Your task to perform on an android device: change alarm snooze length Image 0: 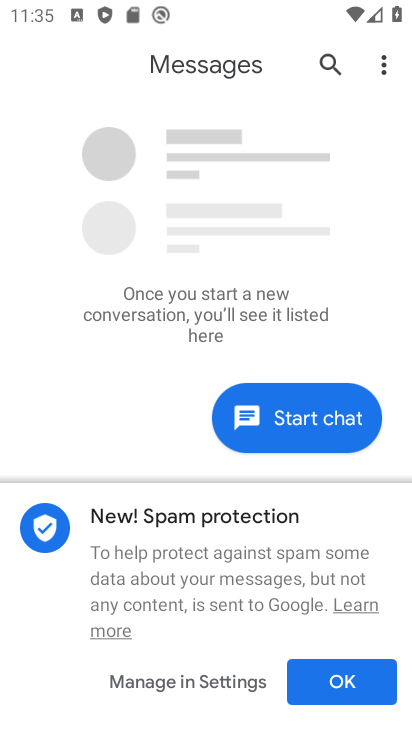
Step 0: click (357, 671)
Your task to perform on an android device: change alarm snooze length Image 1: 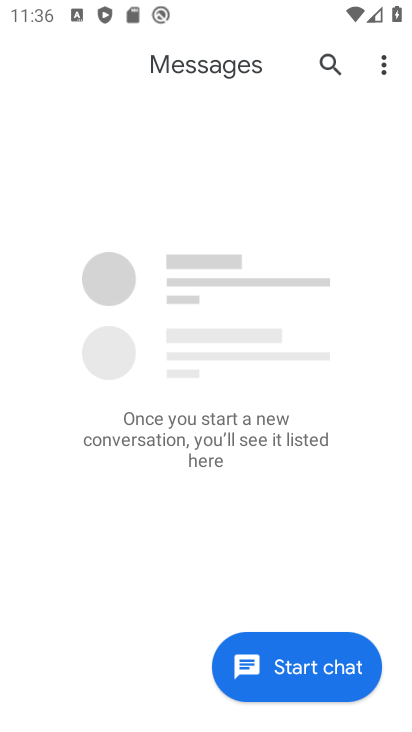
Step 1: click (357, 671)
Your task to perform on an android device: change alarm snooze length Image 2: 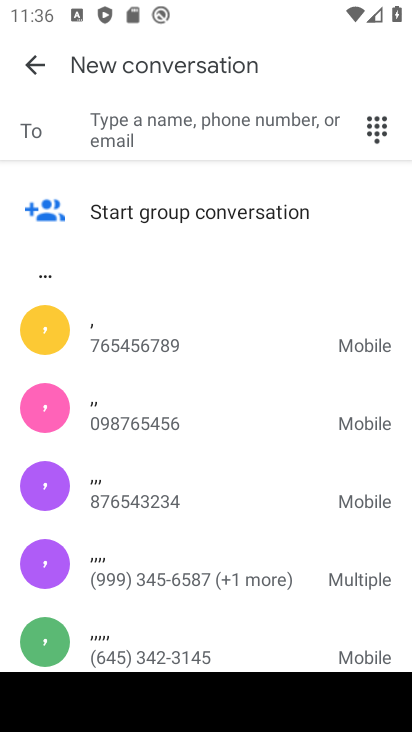
Step 2: press home button
Your task to perform on an android device: change alarm snooze length Image 3: 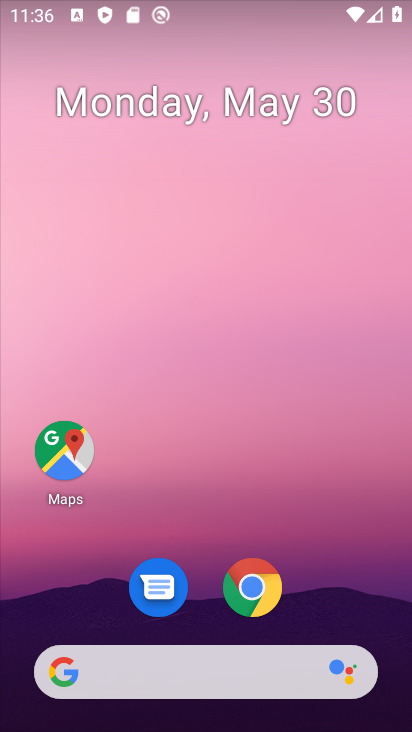
Step 3: drag from (199, 617) to (197, 152)
Your task to perform on an android device: change alarm snooze length Image 4: 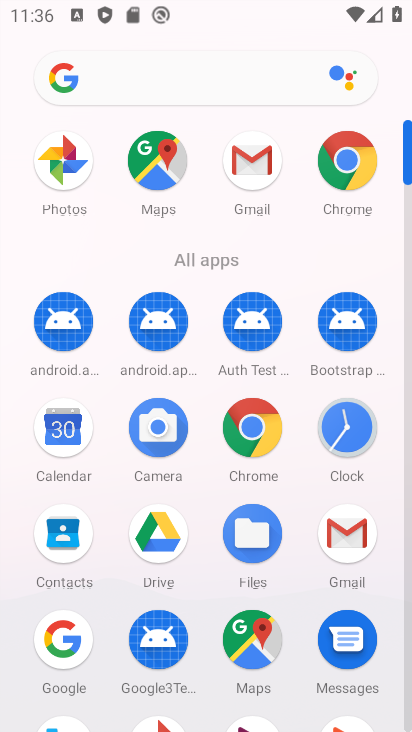
Step 4: click (353, 433)
Your task to perform on an android device: change alarm snooze length Image 5: 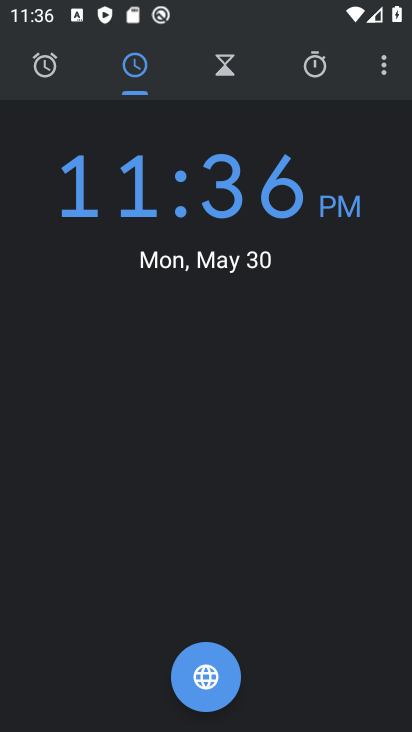
Step 5: click (57, 64)
Your task to perform on an android device: change alarm snooze length Image 6: 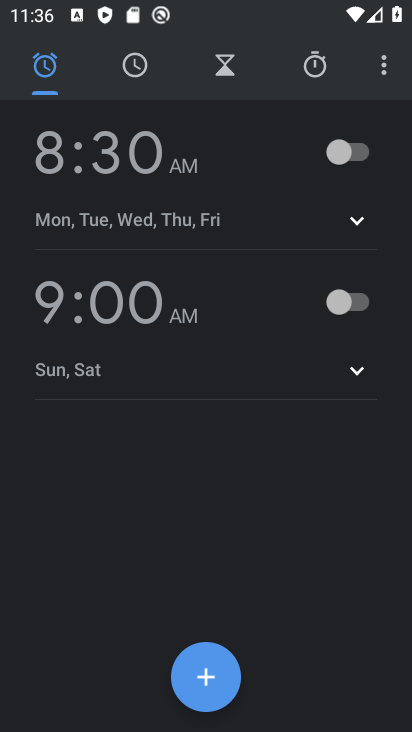
Step 6: click (390, 56)
Your task to perform on an android device: change alarm snooze length Image 7: 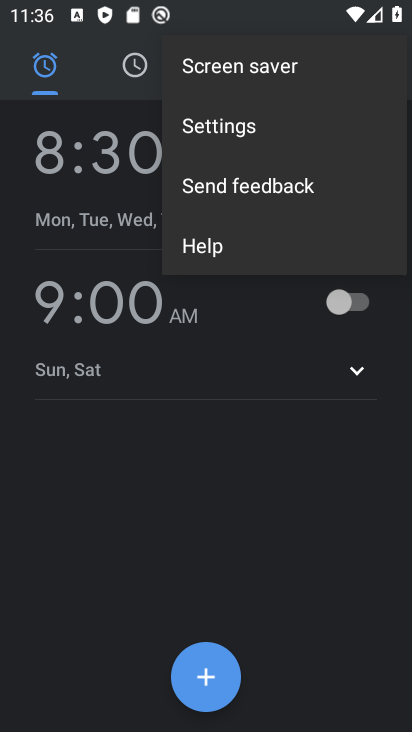
Step 7: click (283, 141)
Your task to perform on an android device: change alarm snooze length Image 8: 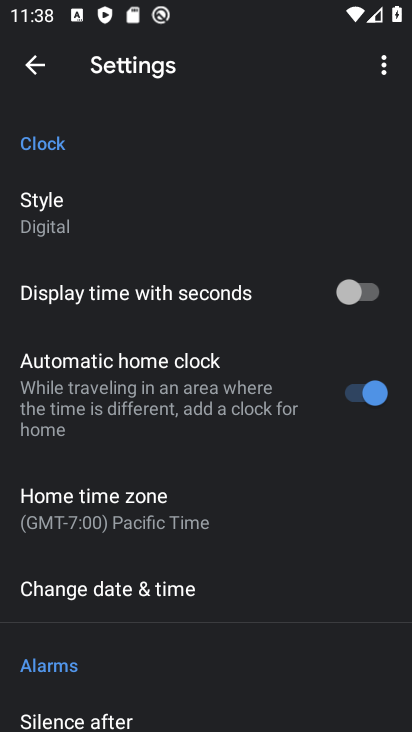
Step 8: drag from (183, 639) to (339, 218)
Your task to perform on an android device: change alarm snooze length Image 9: 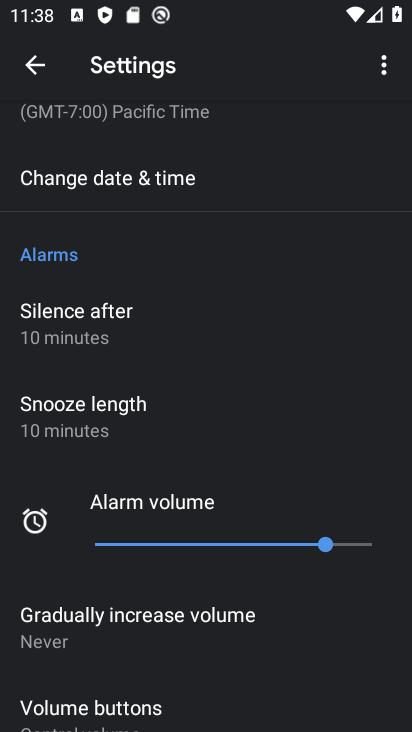
Step 9: click (178, 430)
Your task to perform on an android device: change alarm snooze length Image 10: 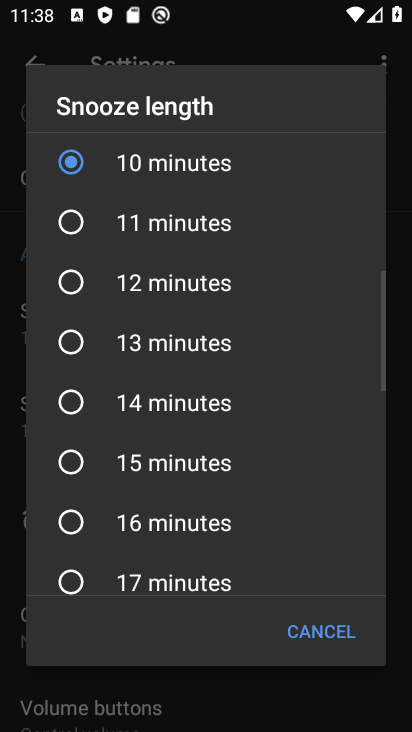
Step 10: click (178, 582)
Your task to perform on an android device: change alarm snooze length Image 11: 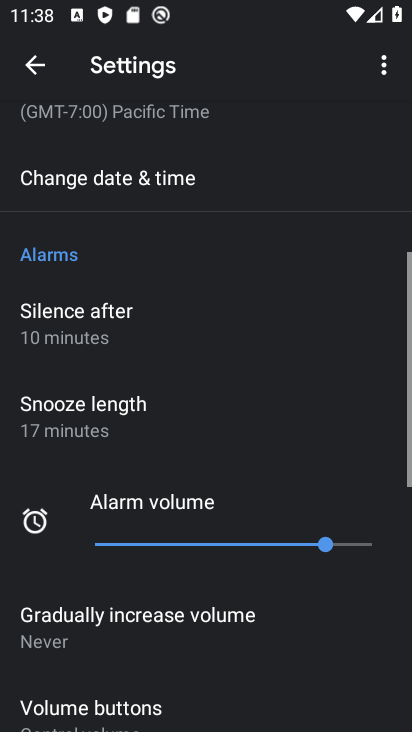
Step 11: task complete